Your task to perform on an android device: Do I have any events today? Image 0: 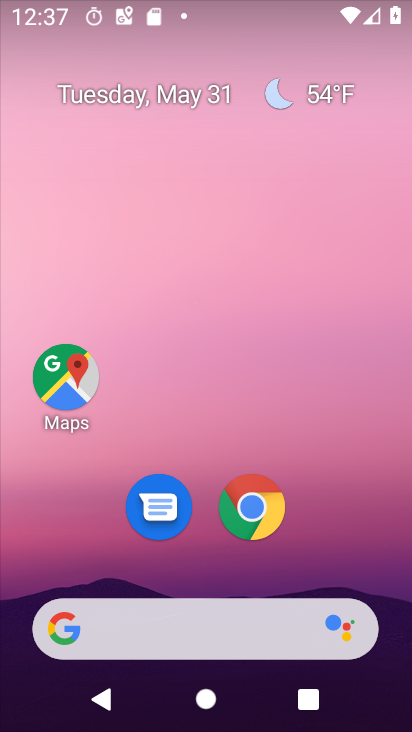
Step 0: drag from (265, 682) to (168, 76)
Your task to perform on an android device: Do I have any events today? Image 1: 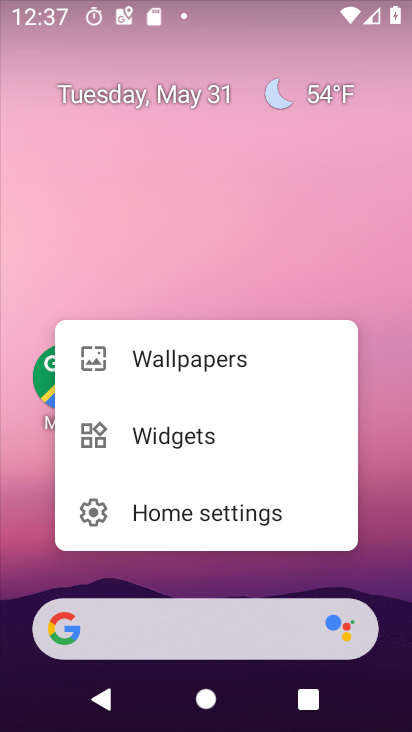
Step 1: drag from (205, 558) to (146, 230)
Your task to perform on an android device: Do I have any events today? Image 2: 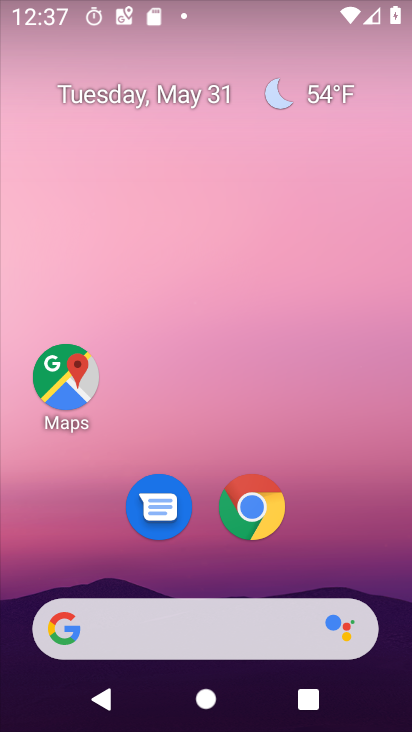
Step 2: click (148, 230)
Your task to perform on an android device: Do I have any events today? Image 3: 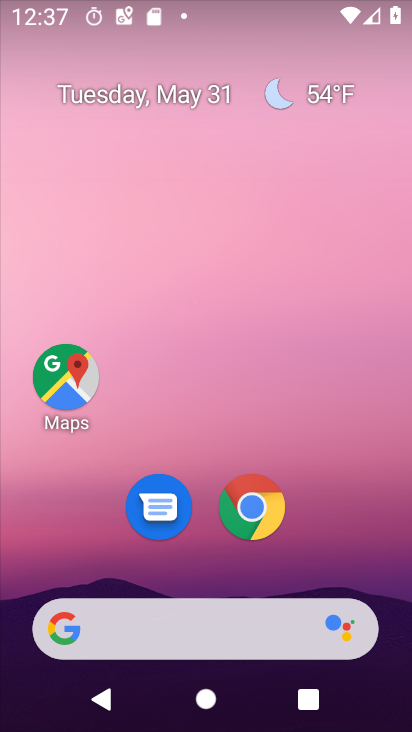
Step 3: drag from (239, 683) to (146, 130)
Your task to perform on an android device: Do I have any events today? Image 4: 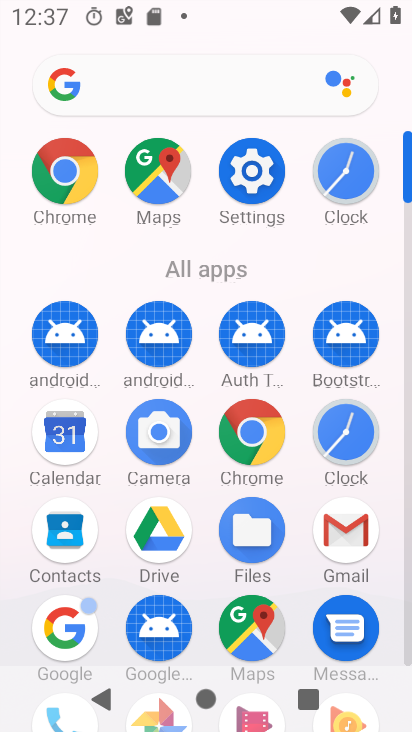
Step 4: drag from (193, 609) to (208, 209)
Your task to perform on an android device: Do I have any events today? Image 5: 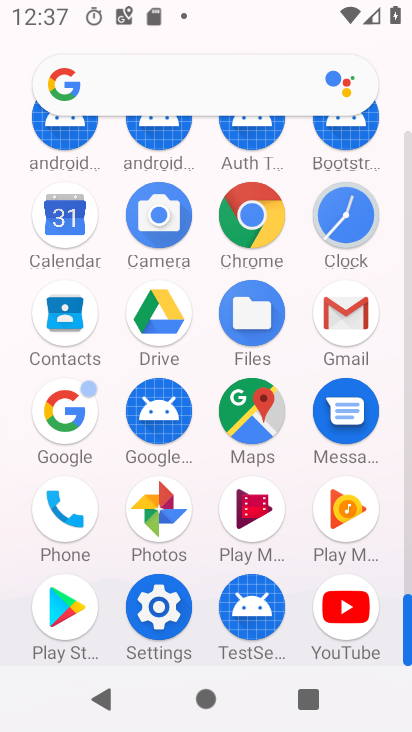
Step 5: click (69, 213)
Your task to perform on an android device: Do I have any events today? Image 6: 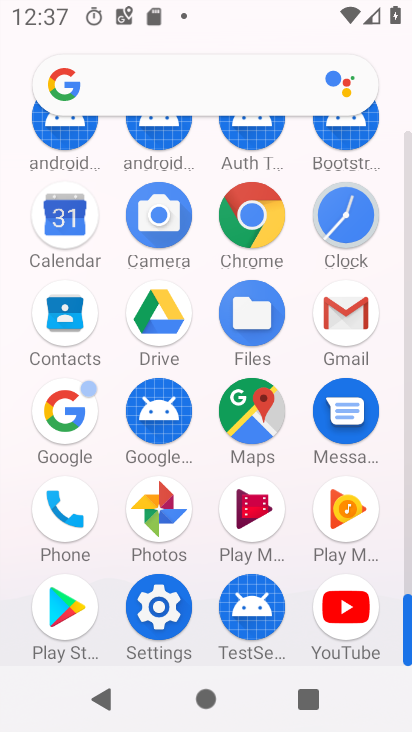
Step 6: click (69, 213)
Your task to perform on an android device: Do I have any events today? Image 7: 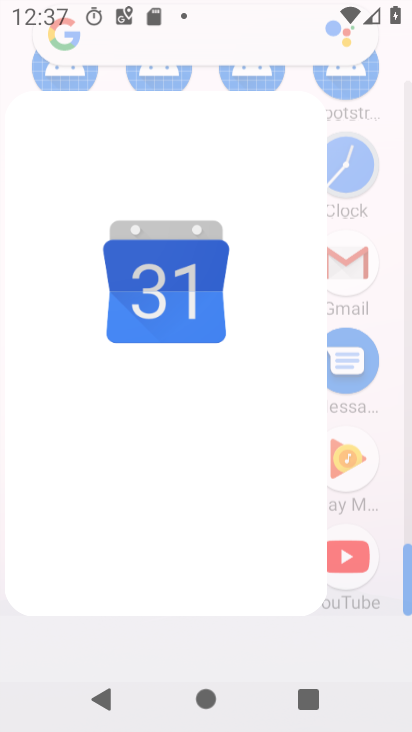
Step 7: click (69, 215)
Your task to perform on an android device: Do I have any events today? Image 8: 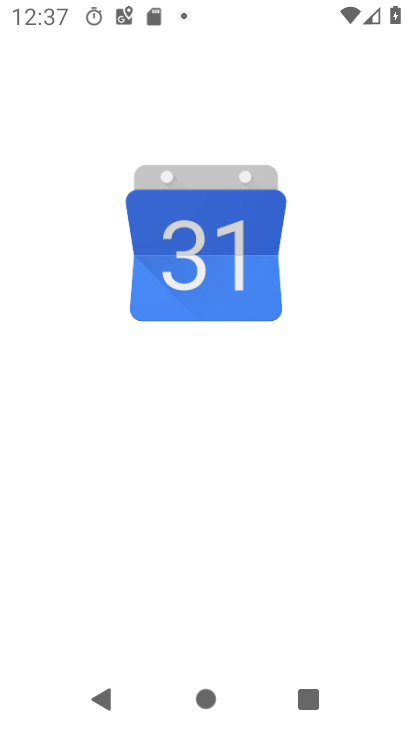
Step 8: click (67, 217)
Your task to perform on an android device: Do I have any events today? Image 9: 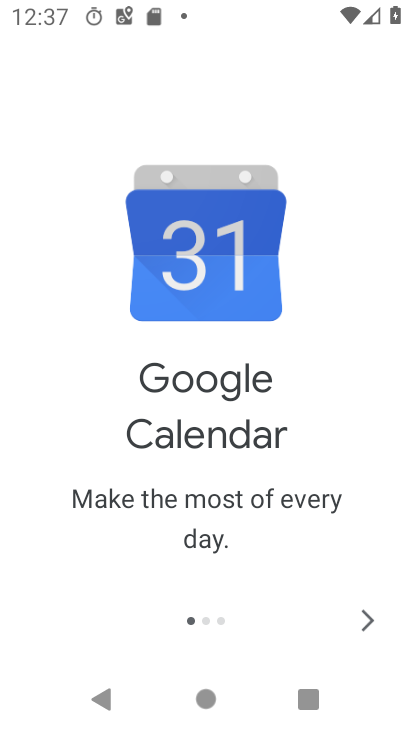
Step 9: click (375, 609)
Your task to perform on an android device: Do I have any events today? Image 10: 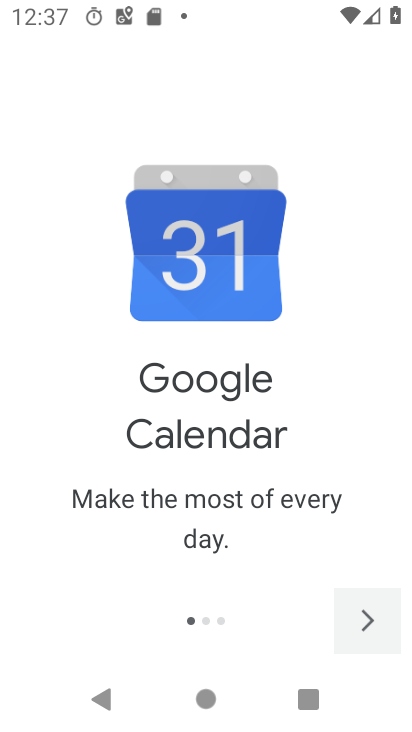
Step 10: click (373, 625)
Your task to perform on an android device: Do I have any events today? Image 11: 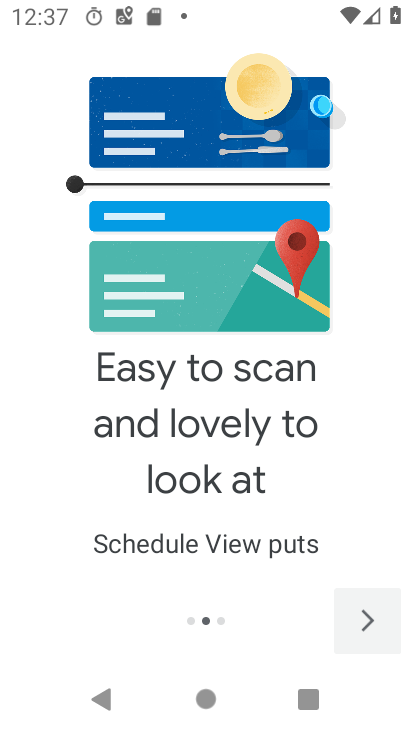
Step 11: click (373, 625)
Your task to perform on an android device: Do I have any events today? Image 12: 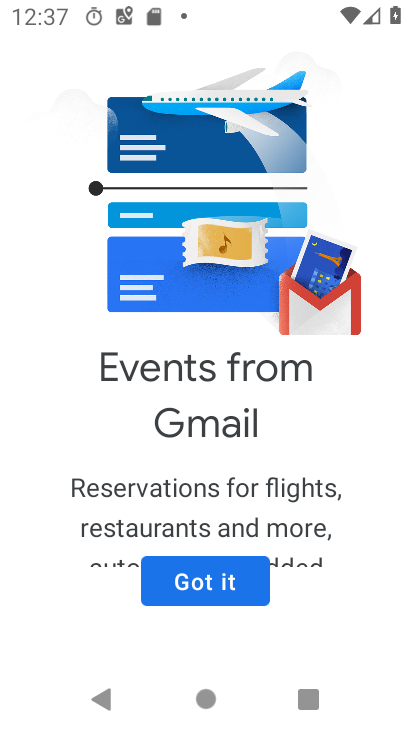
Step 12: click (373, 621)
Your task to perform on an android device: Do I have any events today? Image 13: 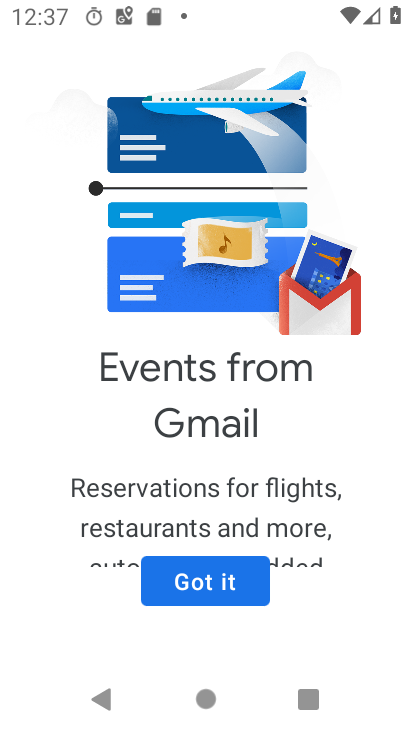
Step 13: click (241, 590)
Your task to perform on an android device: Do I have any events today? Image 14: 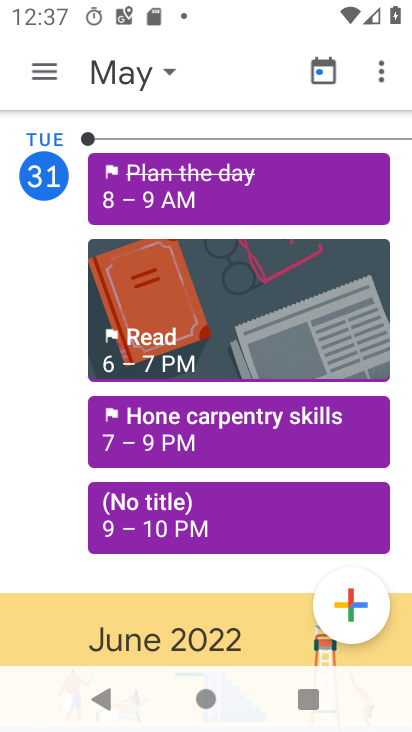
Step 14: click (169, 70)
Your task to perform on an android device: Do I have any events today? Image 15: 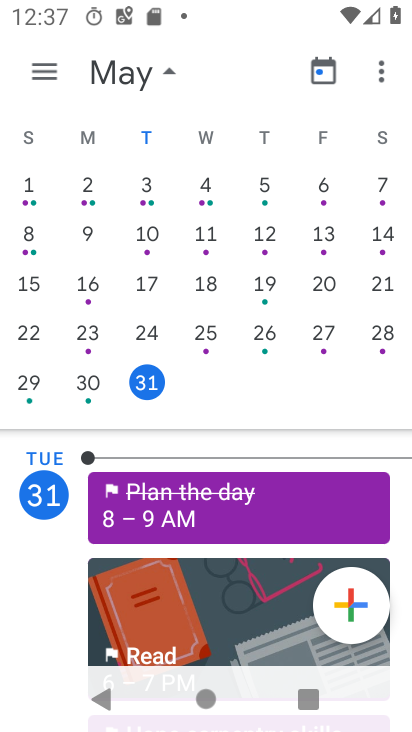
Step 15: click (147, 367)
Your task to perform on an android device: Do I have any events today? Image 16: 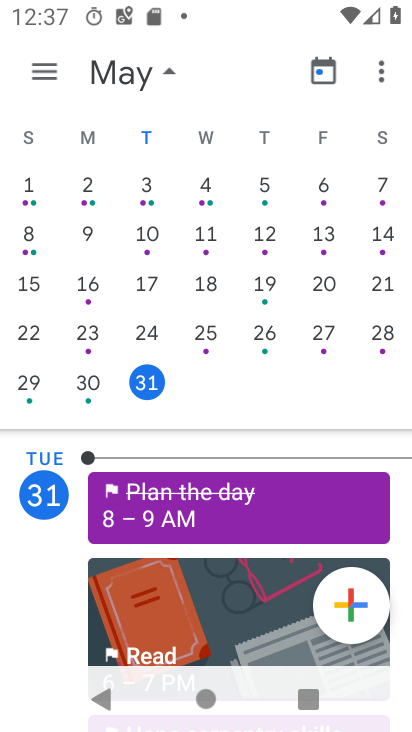
Step 16: click (149, 370)
Your task to perform on an android device: Do I have any events today? Image 17: 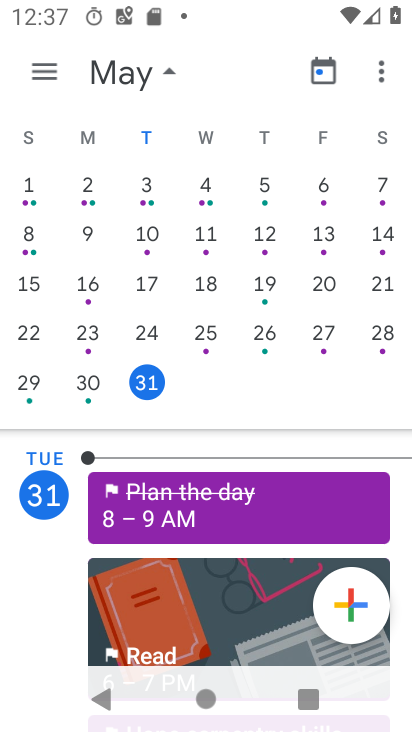
Step 17: click (149, 370)
Your task to perform on an android device: Do I have any events today? Image 18: 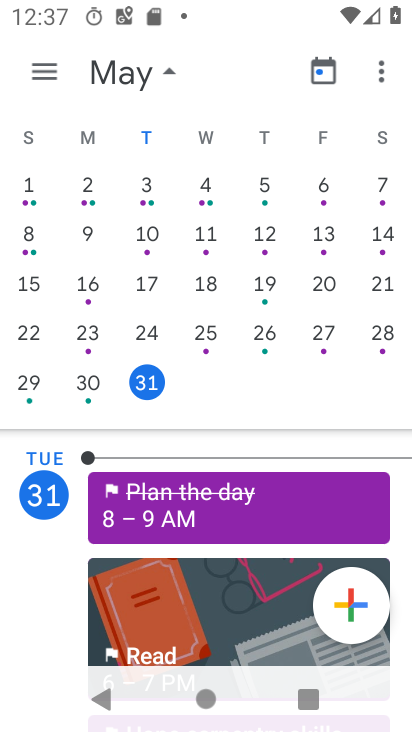
Step 18: click (205, 588)
Your task to perform on an android device: Do I have any events today? Image 19: 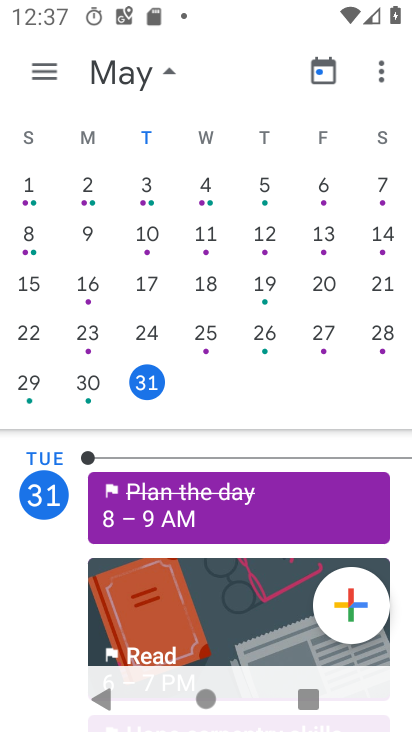
Step 19: click (204, 589)
Your task to perform on an android device: Do I have any events today? Image 20: 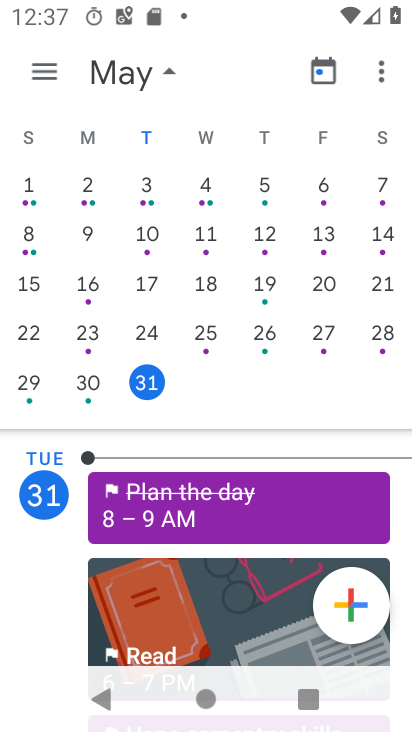
Step 20: click (204, 589)
Your task to perform on an android device: Do I have any events today? Image 21: 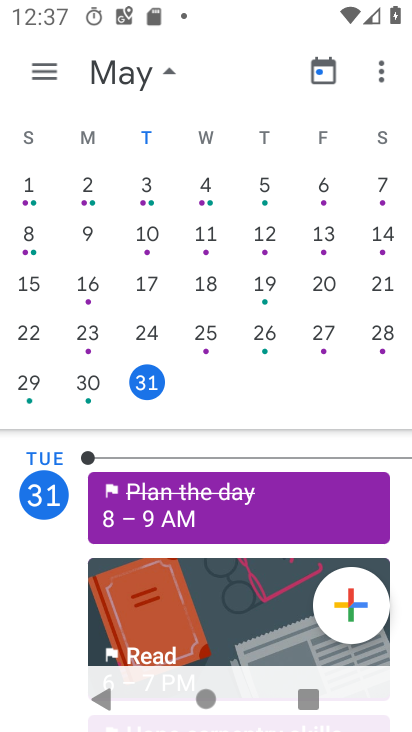
Step 21: click (208, 590)
Your task to perform on an android device: Do I have any events today? Image 22: 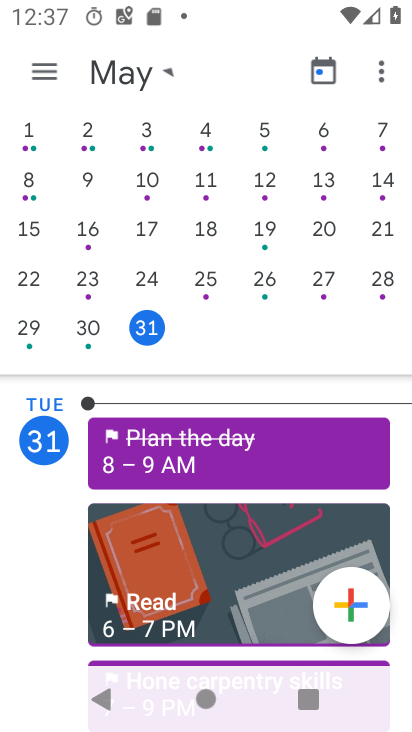
Step 22: click (210, 592)
Your task to perform on an android device: Do I have any events today? Image 23: 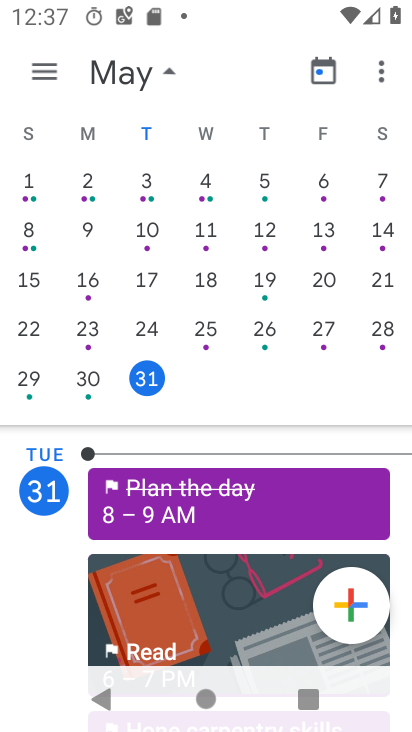
Step 23: click (198, 602)
Your task to perform on an android device: Do I have any events today? Image 24: 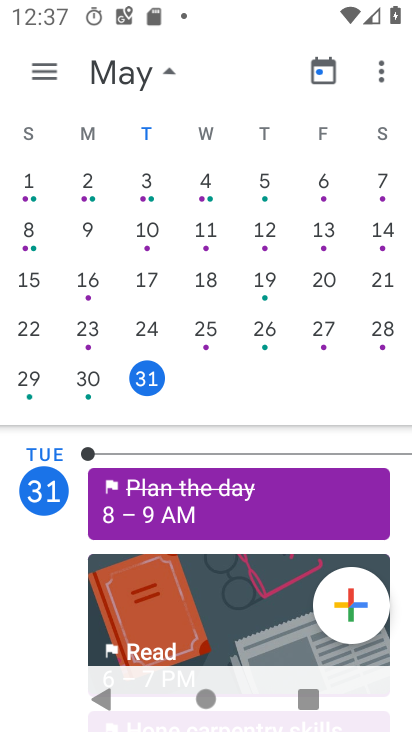
Step 24: click (190, 597)
Your task to perform on an android device: Do I have any events today? Image 25: 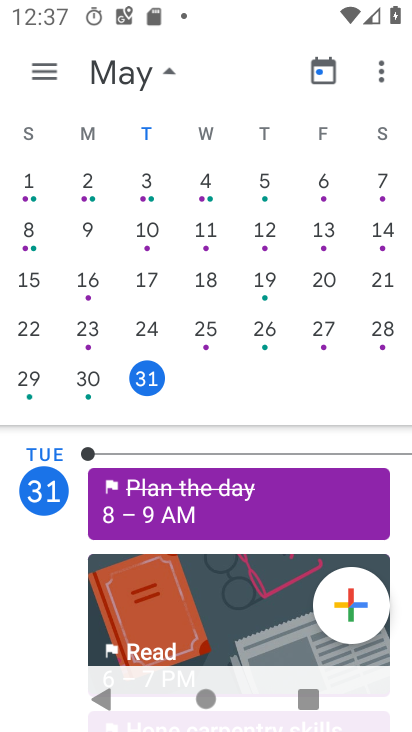
Step 25: task complete